Your task to perform on an android device: turn off location history Image 0: 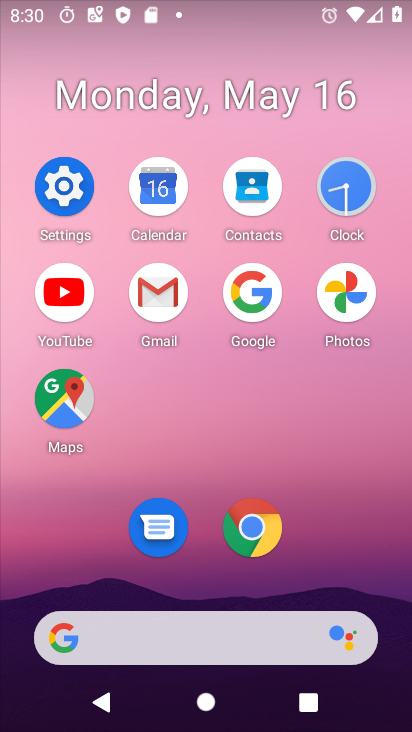
Step 0: click (61, 177)
Your task to perform on an android device: turn off location history Image 1: 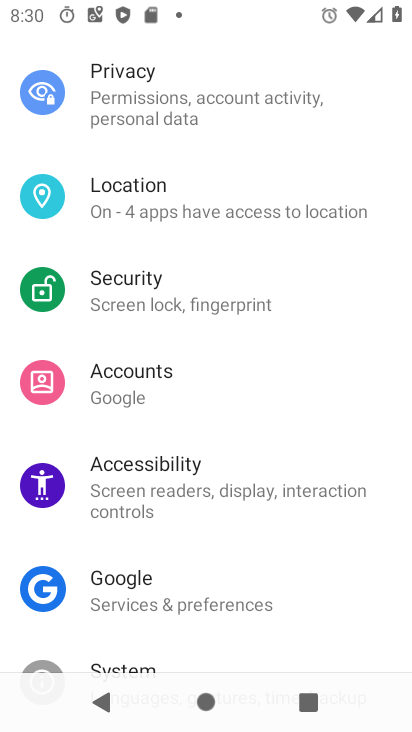
Step 1: click (225, 199)
Your task to perform on an android device: turn off location history Image 2: 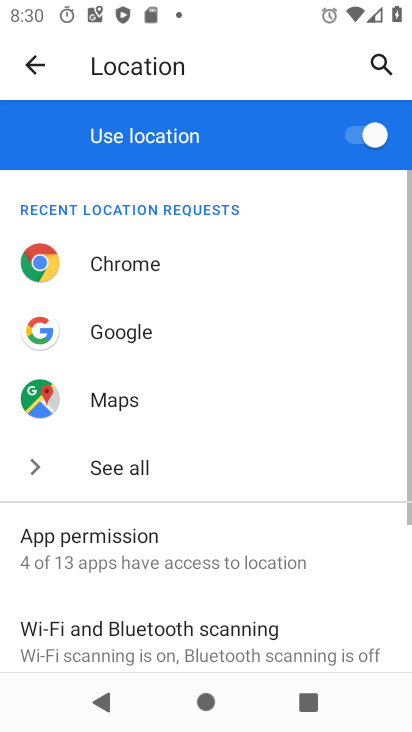
Step 2: drag from (166, 593) to (203, 194)
Your task to perform on an android device: turn off location history Image 3: 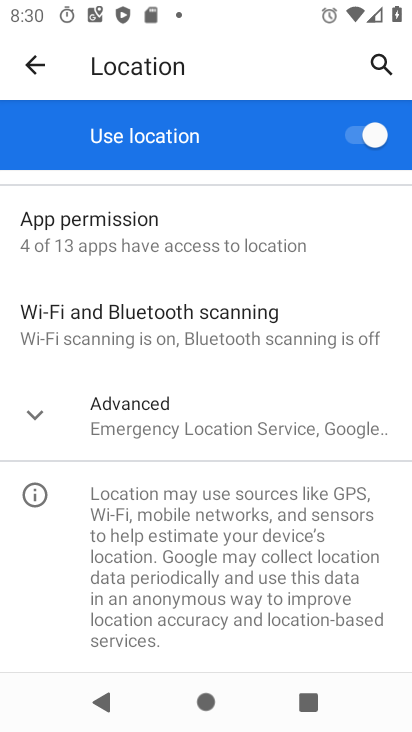
Step 3: click (155, 430)
Your task to perform on an android device: turn off location history Image 4: 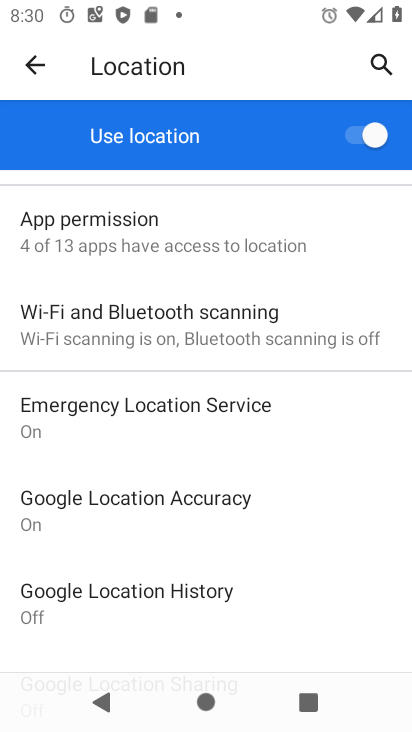
Step 4: click (206, 589)
Your task to perform on an android device: turn off location history Image 5: 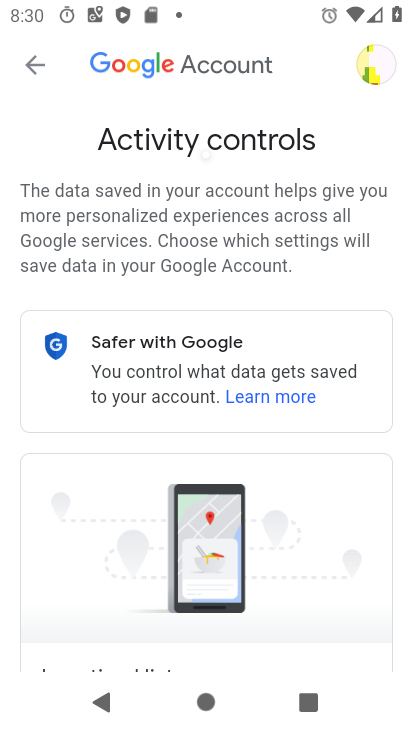
Step 5: drag from (195, 574) to (228, 121)
Your task to perform on an android device: turn off location history Image 6: 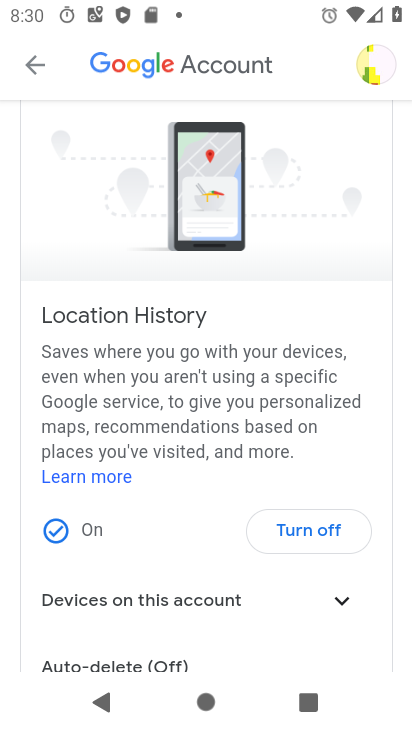
Step 6: click (347, 545)
Your task to perform on an android device: turn off location history Image 7: 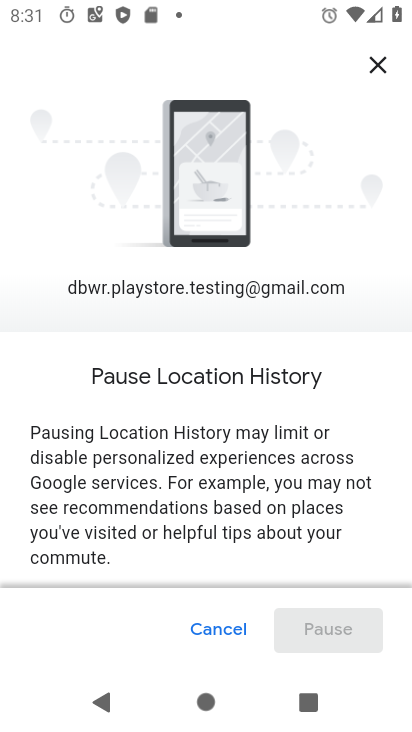
Step 7: drag from (337, 555) to (328, 64)
Your task to perform on an android device: turn off location history Image 8: 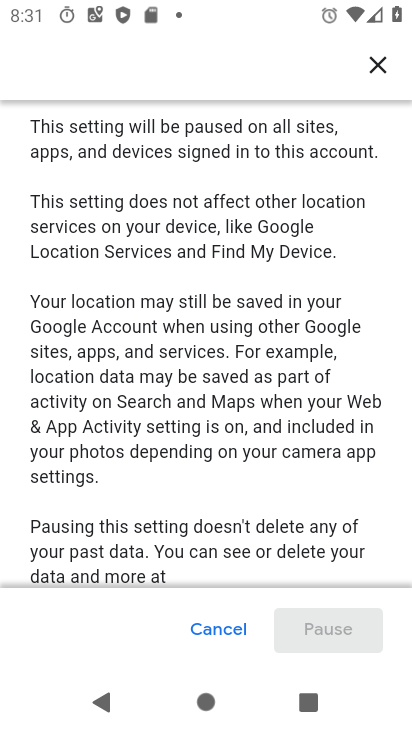
Step 8: drag from (306, 516) to (300, 61)
Your task to perform on an android device: turn off location history Image 9: 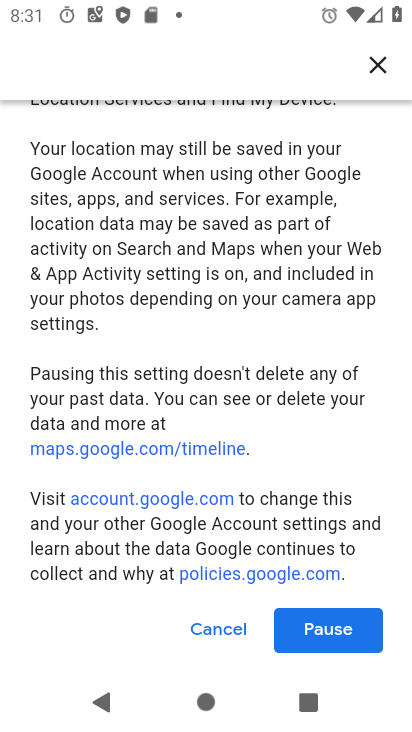
Step 9: click (321, 636)
Your task to perform on an android device: turn off location history Image 10: 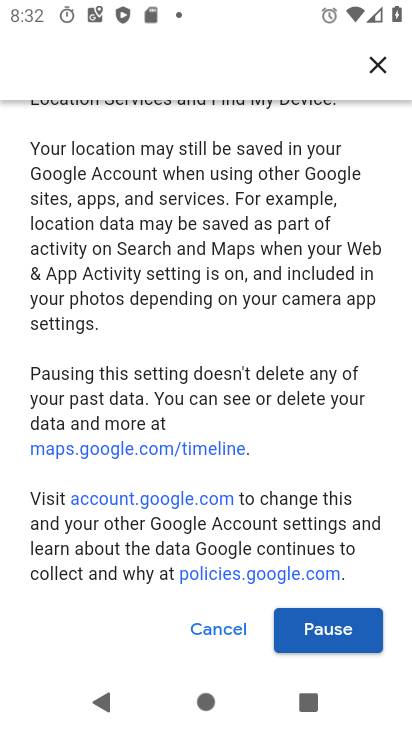
Step 10: click (342, 631)
Your task to perform on an android device: turn off location history Image 11: 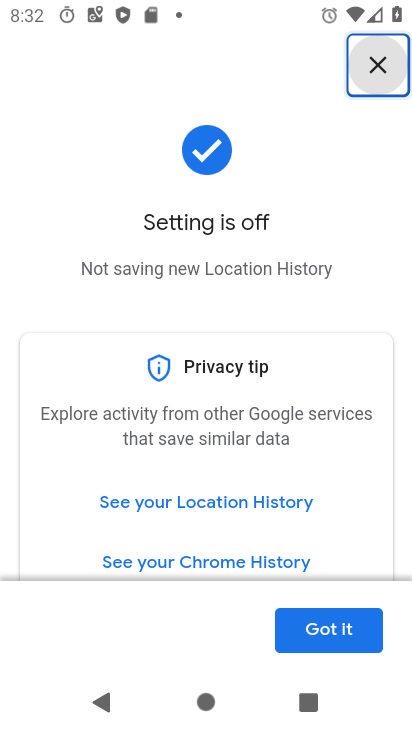
Step 11: click (342, 631)
Your task to perform on an android device: turn off location history Image 12: 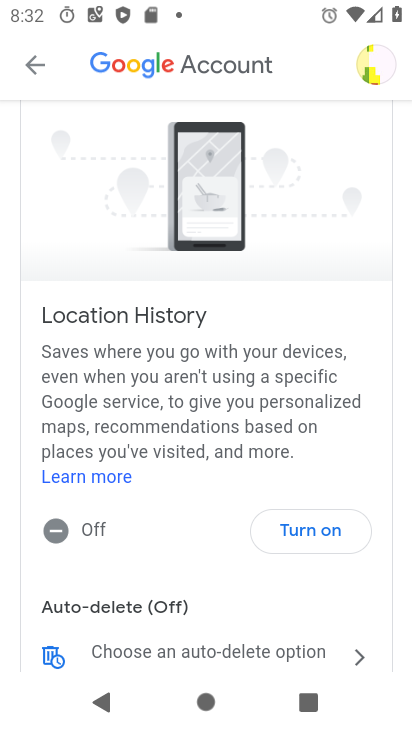
Step 12: task complete